Your task to perform on an android device: What's on my calendar tomorrow? Image 0: 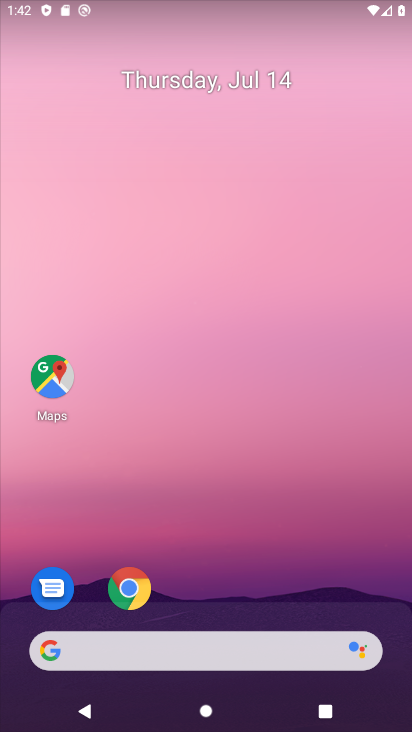
Step 0: drag from (280, 588) to (312, 58)
Your task to perform on an android device: What's on my calendar tomorrow? Image 1: 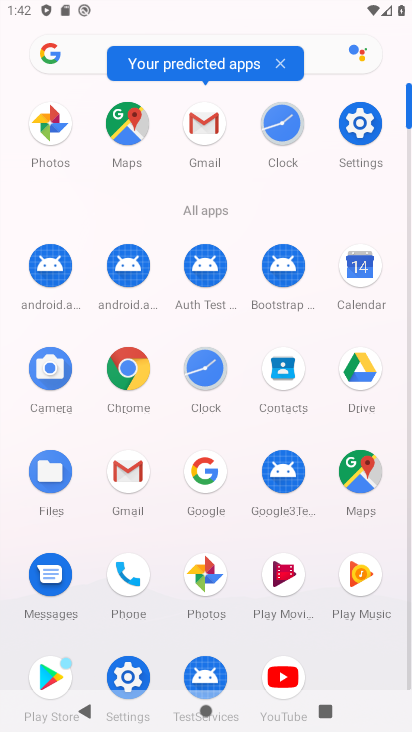
Step 1: click (357, 276)
Your task to perform on an android device: What's on my calendar tomorrow? Image 2: 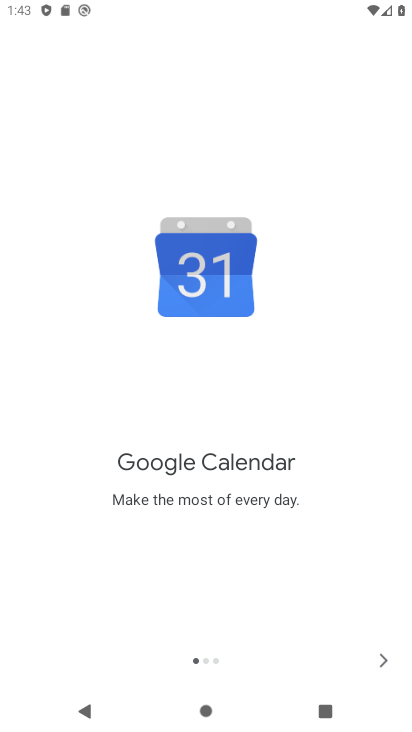
Step 2: click (382, 657)
Your task to perform on an android device: What's on my calendar tomorrow? Image 3: 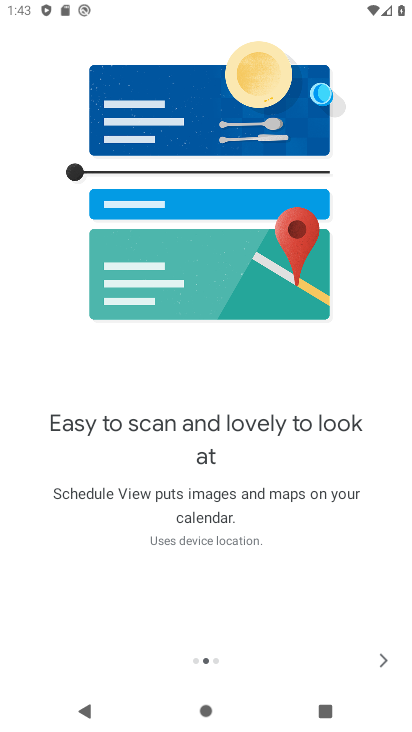
Step 3: click (382, 657)
Your task to perform on an android device: What's on my calendar tomorrow? Image 4: 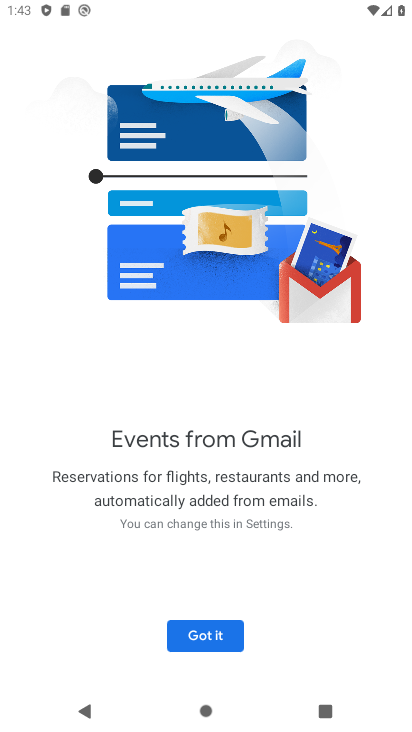
Step 4: click (187, 624)
Your task to perform on an android device: What's on my calendar tomorrow? Image 5: 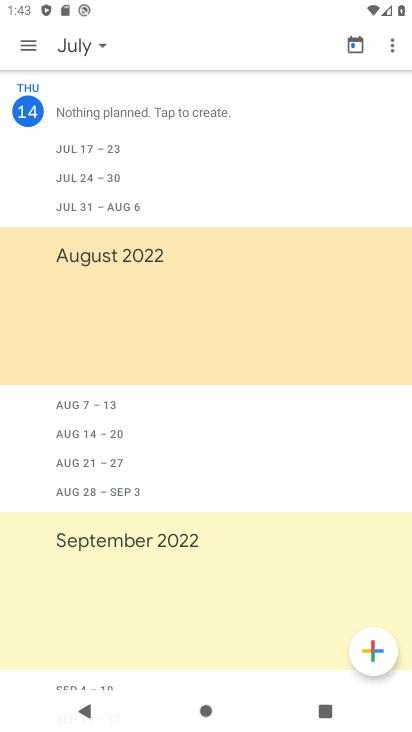
Step 5: click (187, 624)
Your task to perform on an android device: What's on my calendar tomorrow? Image 6: 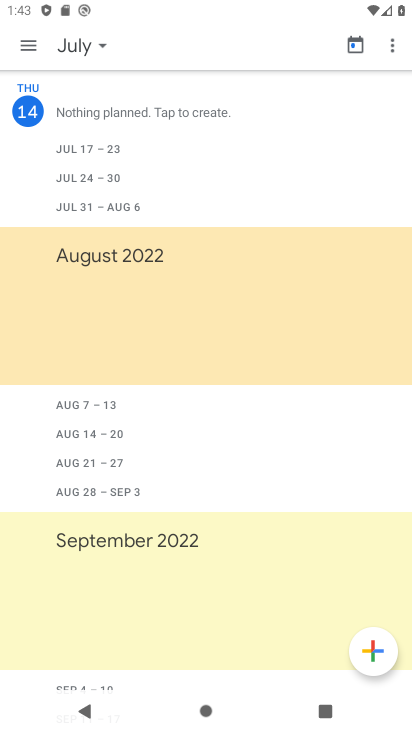
Step 6: click (103, 45)
Your task to perform on an android device: What's on my calendar tomorrow? Image 7: 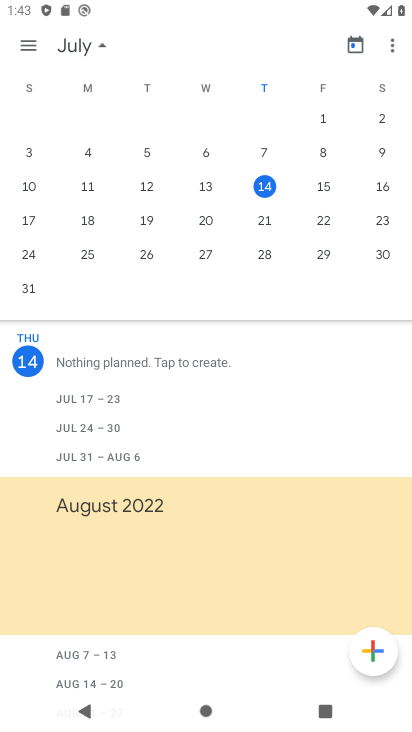
Step 7: click (322, 182)
Your task to perform on an android device: What's on my calendar tomorrow? Image 8: 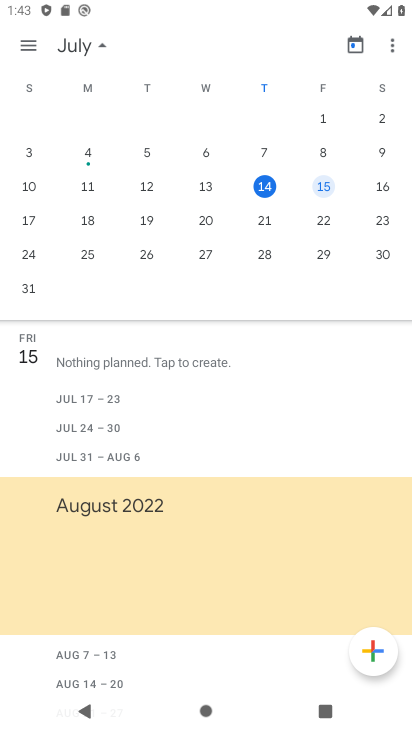
Step 8: task complete